Your task to perform on an android device: Is it going to rain this weekend? Image 0: 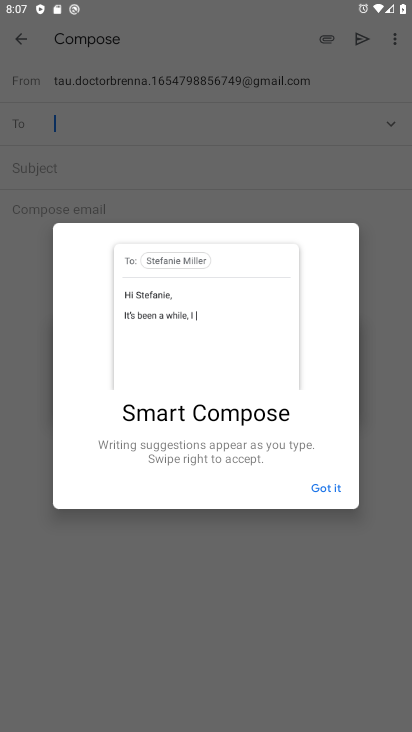
Step 0: press home button
Your task to perform on an android device: Is it going to rain this weekend? Image 1: 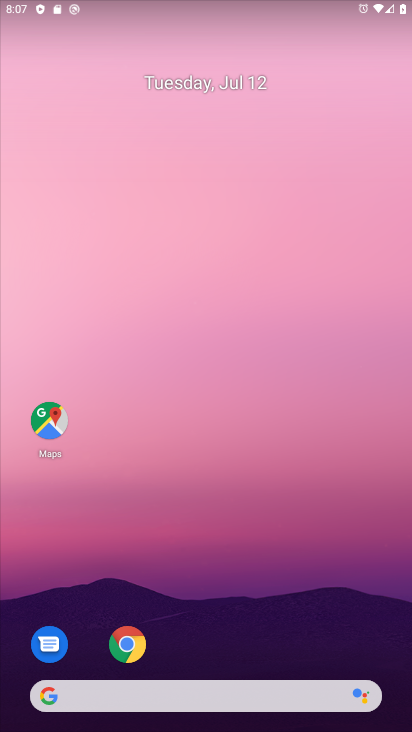
Step 1: click (120, 706)
Your task to perform on an android device: Is it going to rain this weekend? Image 2: 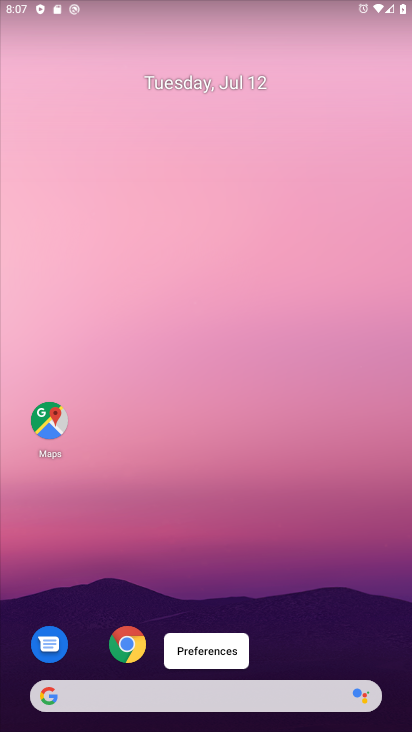
Step 2: click (90, 690)
Your task to perform on an android device: Is it going to rain this weekend? Image 3: 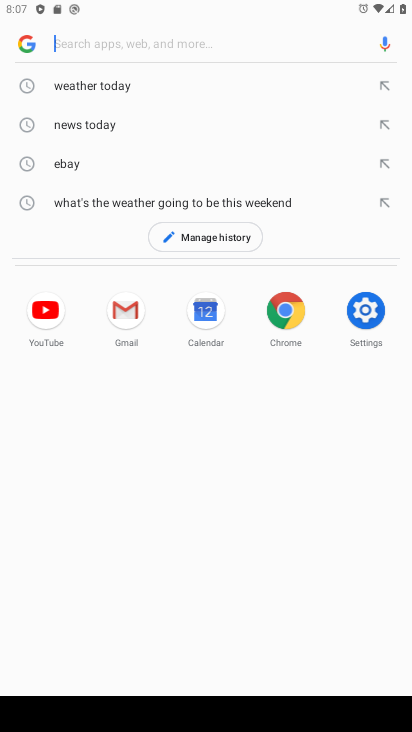
Step 3: type "Is it going to rain this weekend?"
Your task to perform on an android device: Is it going to rain this weekend? Image 4: 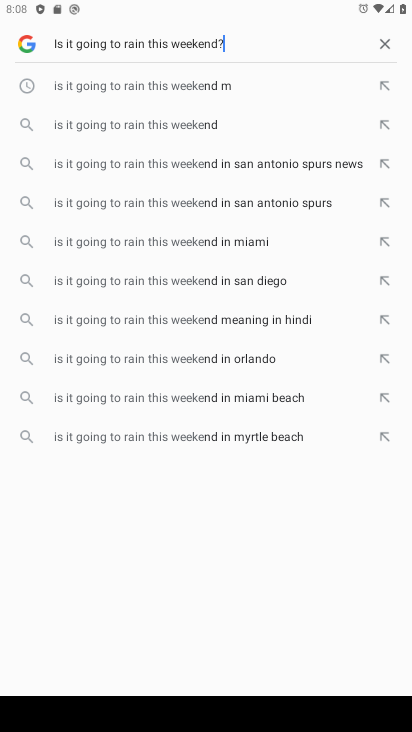
Step 4: type ""
Your task to perform on an android device: Is it going to rain this weekend? Image 5: 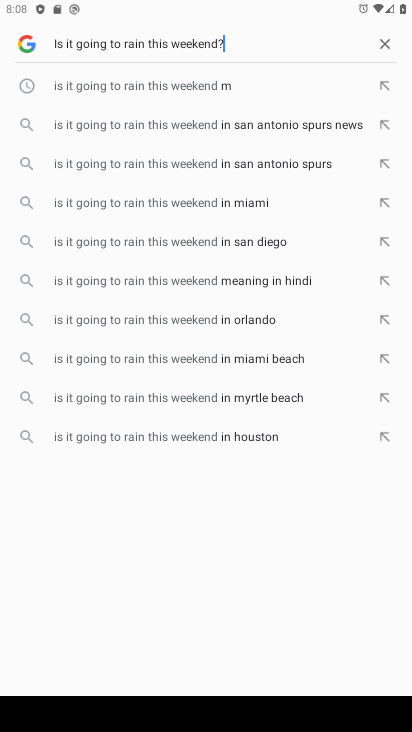
Step 5: task complete